Your task to perform on an android device: toggle data saver in the chrome app Image 0: 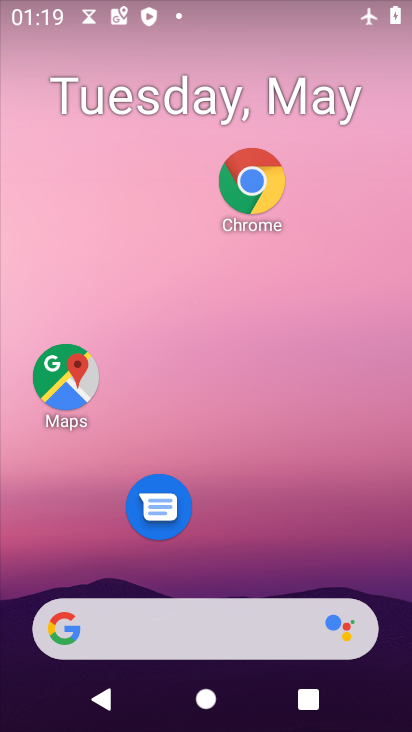
Step 0: drag from (290, 578) to (310, 244)
Your task to perform on an android device: toggle data saver in the chrome app Image 1: 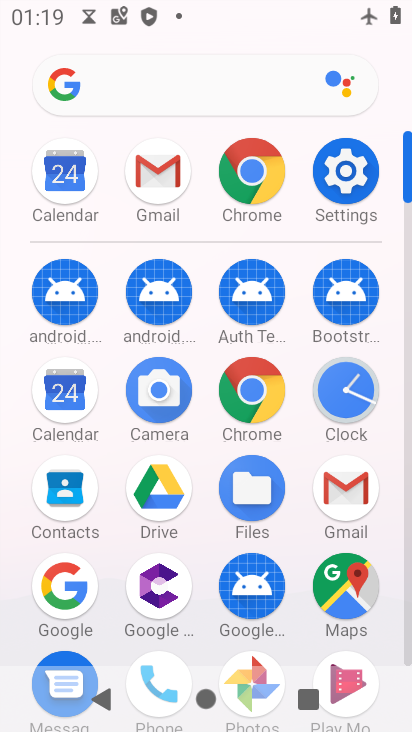
Step 1: click (243, 154)
Your task to perform on an android device: toggle data saver in the chrome app Image 2: 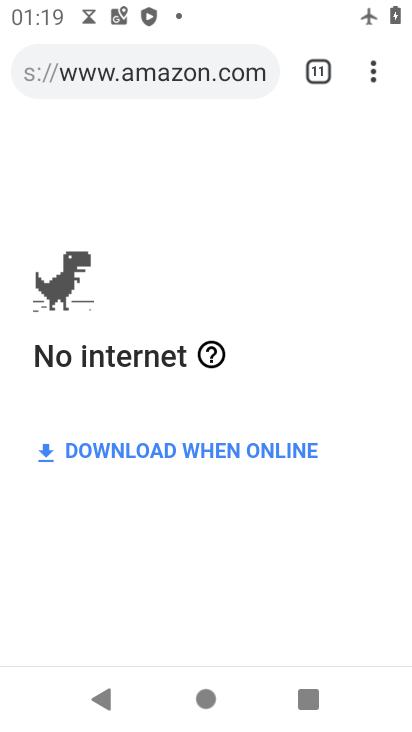
Step 2: click (360, 59)
Your task to perform on an android device: toggle data saver in the chrome app Image 3: 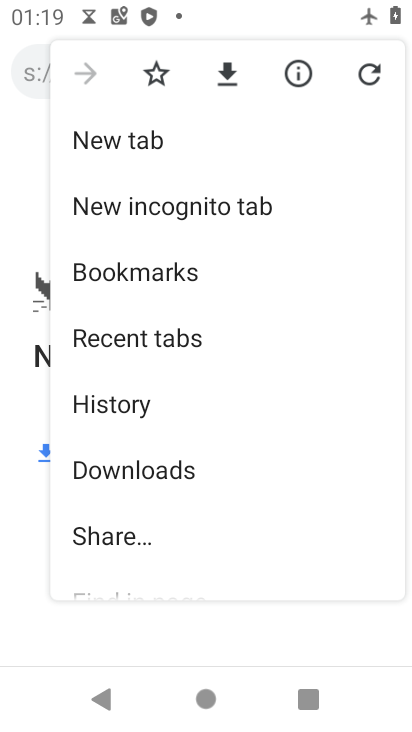
Step 3: drag from (185, 500) to (249, 177)
Your task to perform on an android device: toggle data saver in the chrome app Image 4: 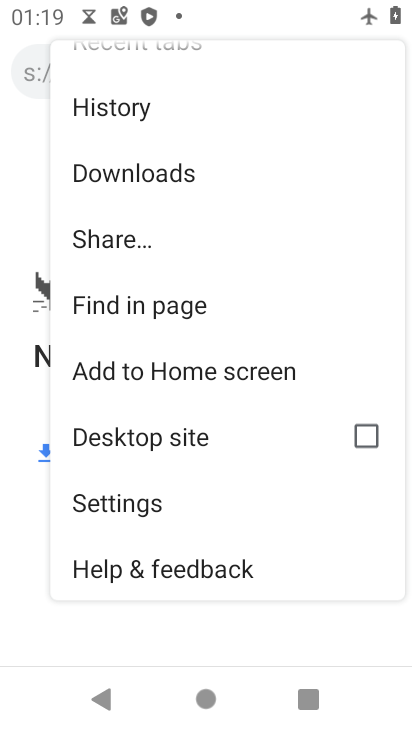
Step 4: click (155, 504)
Your task to perform on an android device: toggle data saver in the chrome app Image 5: 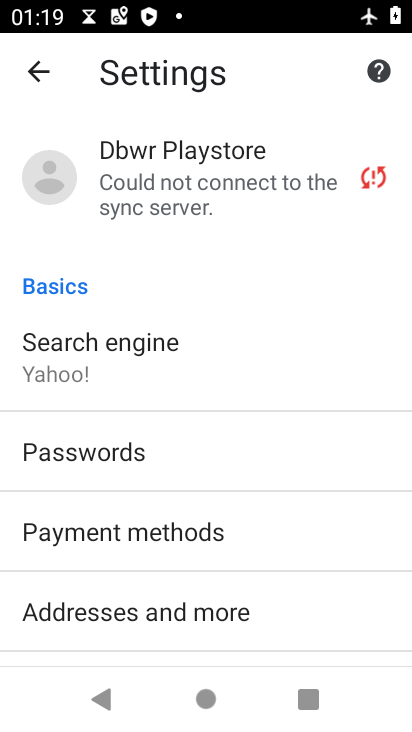
Step 5: drag from (205, 589) to (285, 196)
Your task to perform on an android device: toggle data saver in the chrome app Image 6: 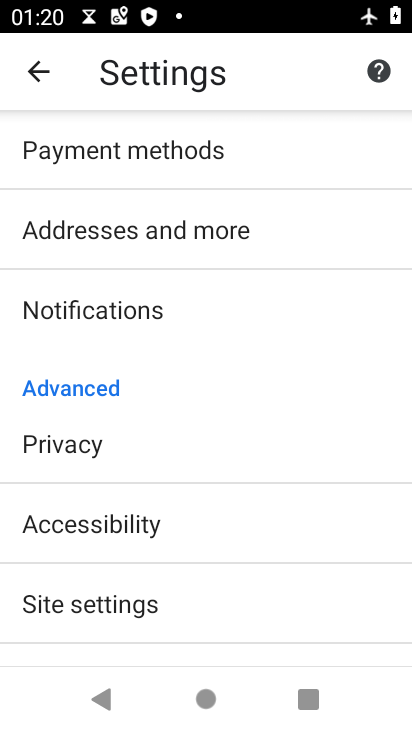
Step 6: drag from (296, 561) to (313, 259)
Your task to perform on an android device: toggle data saver in the chrome app Image 7: 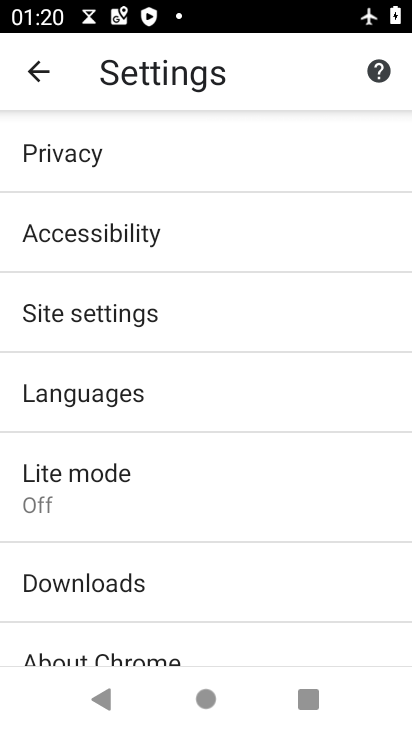
Step 7: click (167, 490)
Your task to perform on an android device: toggle data saver in the chrome app Image 8: 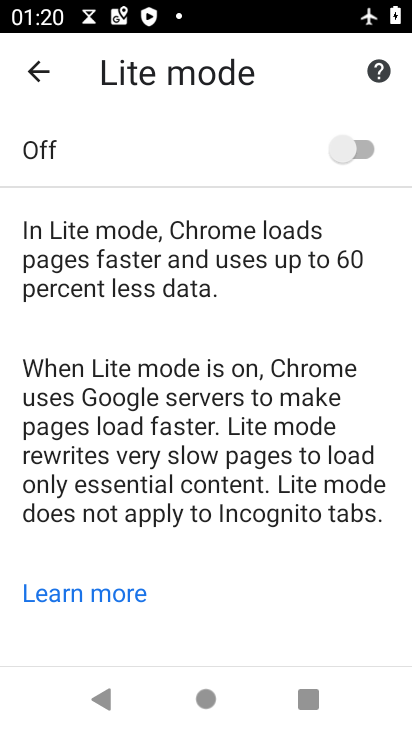
Step 8: drag from (320, 574) to (342, 269)
Your task to perform on an android device: toggle data saver in the chrome app Image 9: 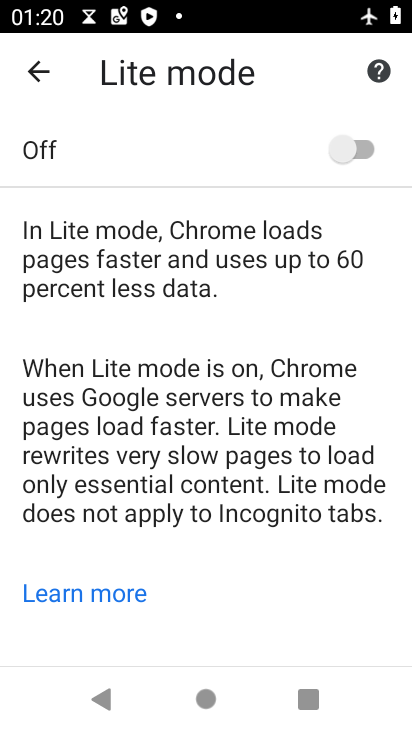
Step 9: click (361, 132)
Your task to perform on an android device: toggle data saver in the chrome app Image 10: 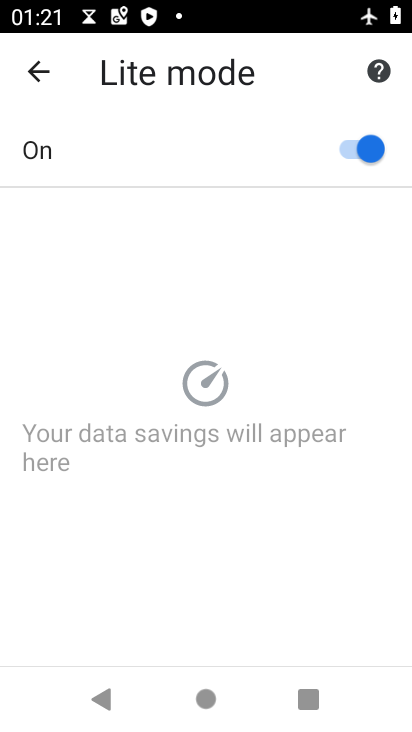
Step 10: task complete